Your task to perform on an android device: change alarm snooze length Image 0: 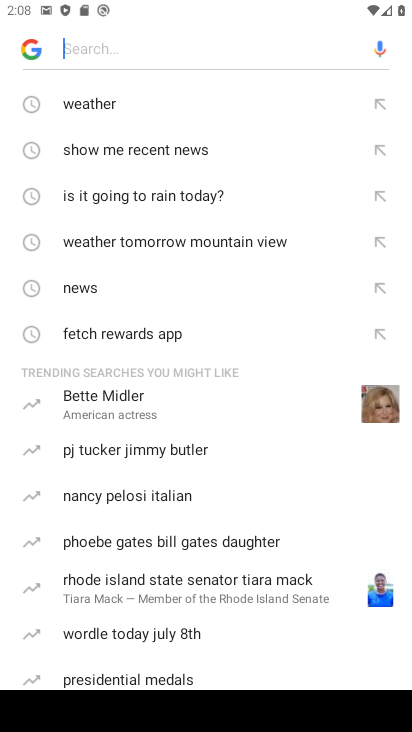
Step 0: press home button
Your task to perform on an android device: change alarm snooze length Image 1: 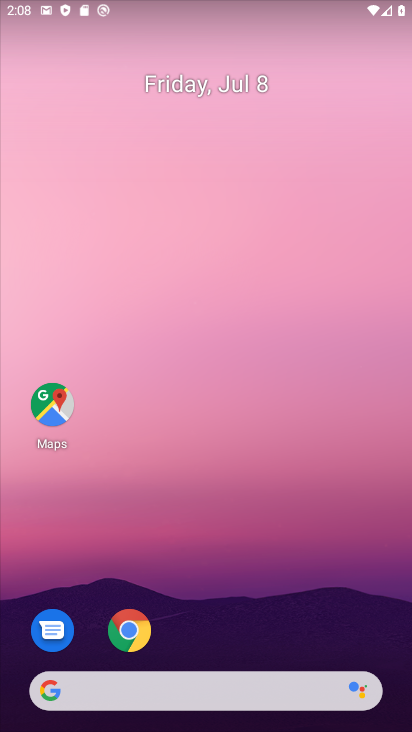
Step 1: drag from (260, 611) to (296, 211)
Your task to perform on an android device: change alarm snooze length Image 2: 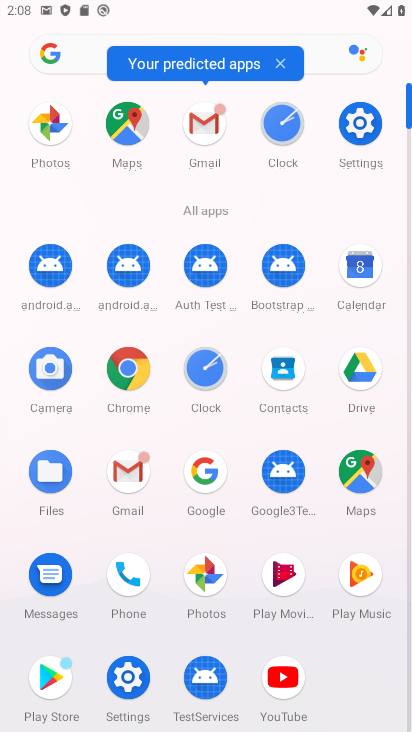
Step 2: click (291, 157)
Your task to perform on an android device: change alarm snooze length Image 3: 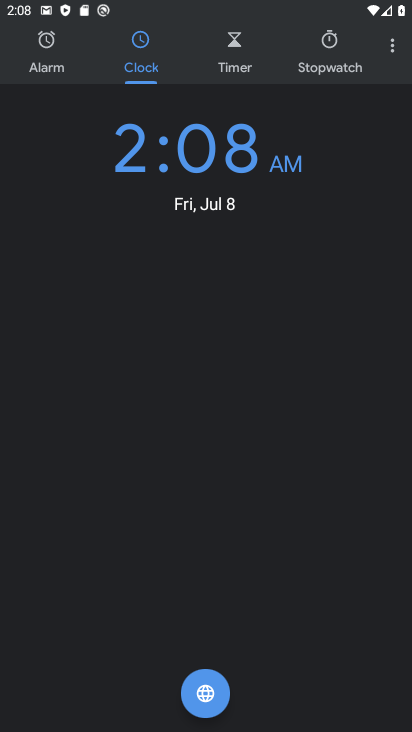
Step 3: click (397, 61)
Your task to perform on an android device: change alarm snooze length Image 4: 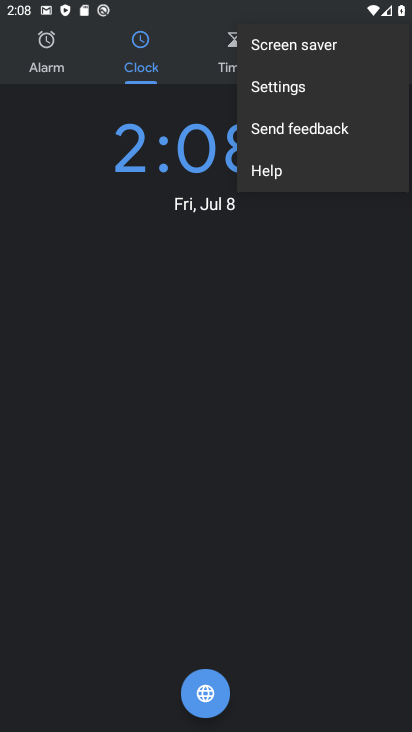
Step 4: click (359, 91)
Your task to perform on an android device: change alarm snooze length Image 5: 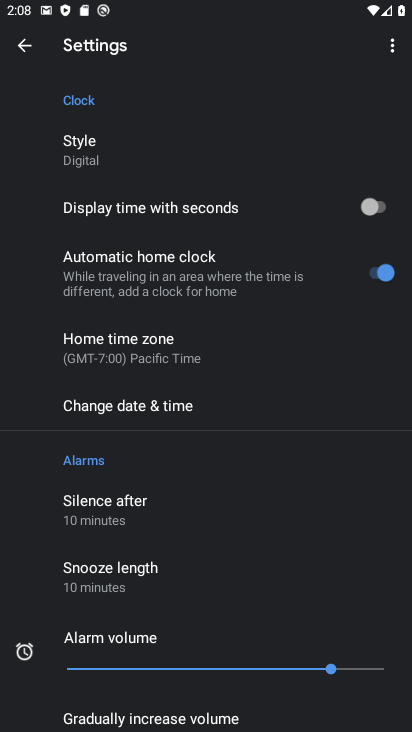
Step 5: click (130, 567)
Your task to perform on an android device: change alarm snooze length Image 6: 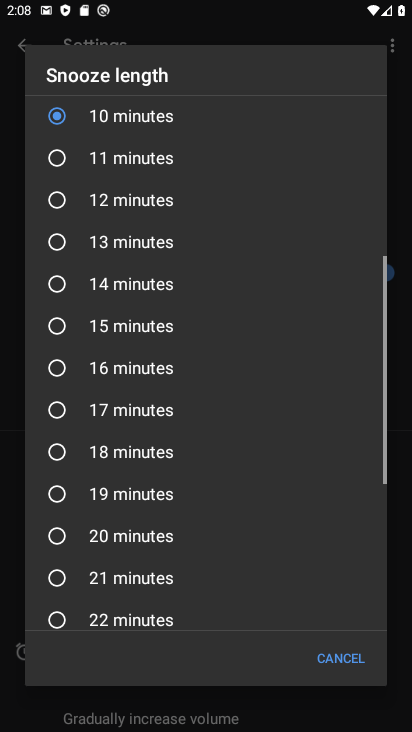
Step 6: click (223, 355)
Your task to perform on an android device: change alarm snooze length Image 7: 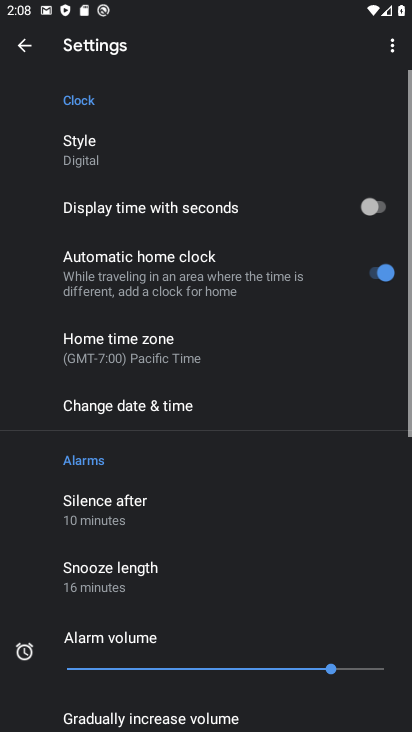
Step 7: task complete